Your task to perform on an android device: turn off translation in the chrome app Image 0: 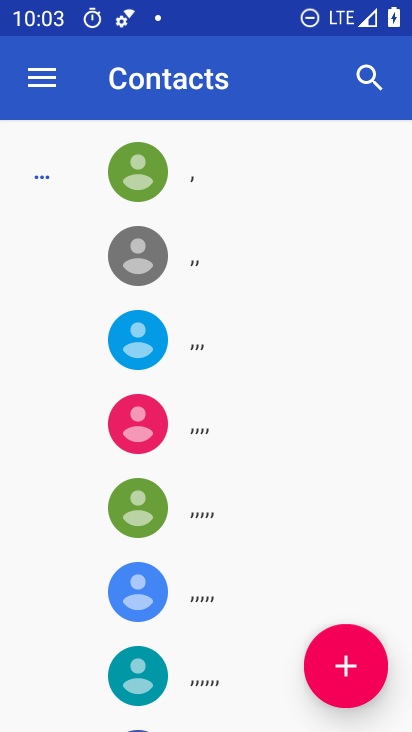
Step 0: press home button
Your task to perform on an android device: turn off translation in the chrome app Image 1: 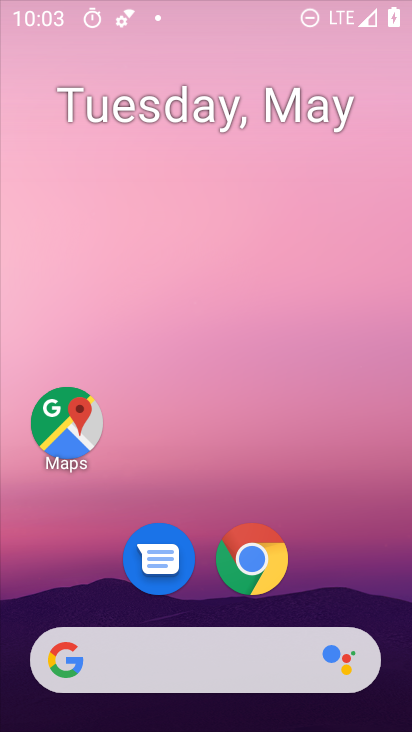
Step 1: click (398, 649)
Your task to perform on an android device: turn off translation in the chrome app Image 2: 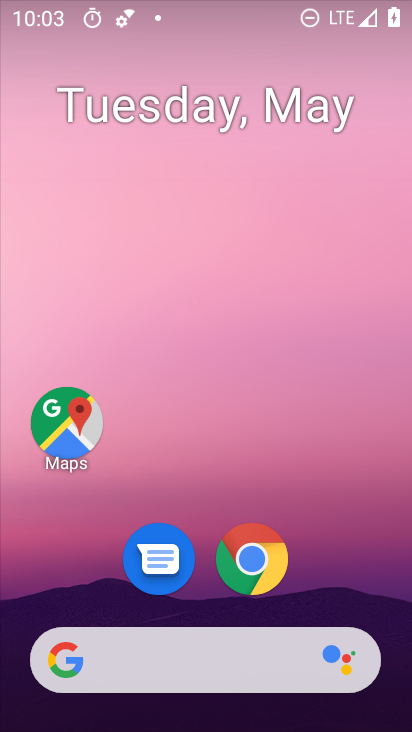
Step 2: drag from (375, 347) to (285, 38)
Your task to perform on an android device: turn off translation in the chrome app Image 3: 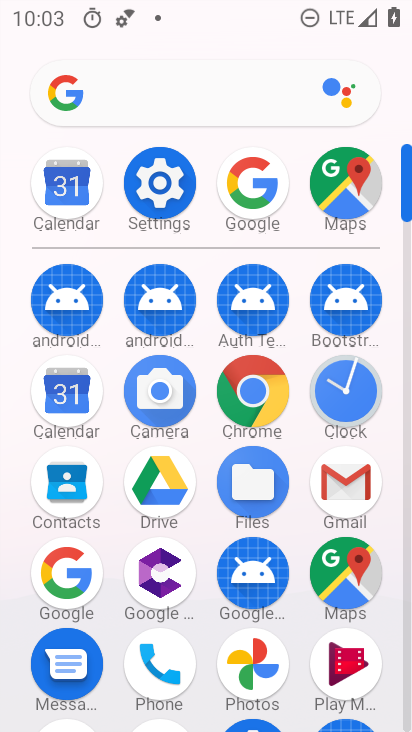
Step 3: click (240, 391)
Your task to perform on an android device: turn off translation in the chrome app Image 4: 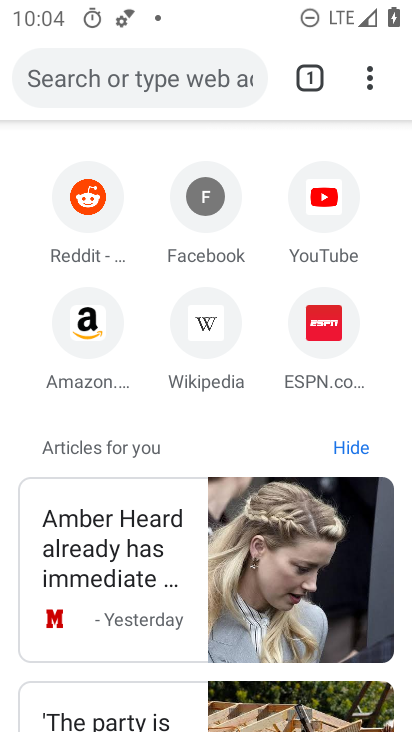
Step 4: click (375, 68)
Your task to perform on an android device: turn off translation in the chrome app Image 5: 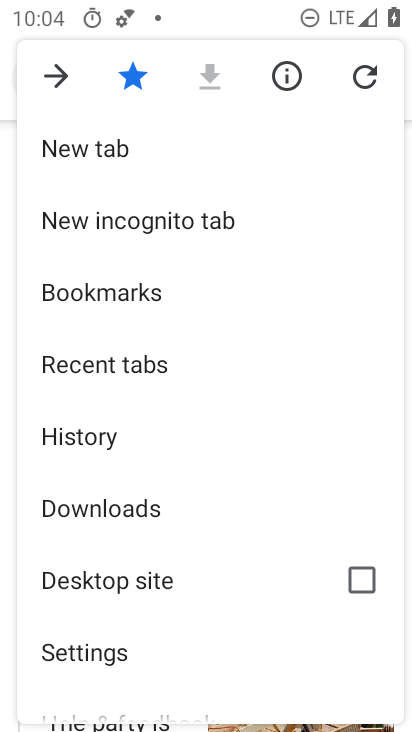
Step 5: drag from (124, 670) to (215, 180)
Your task to perform on an android device: turn off translation in the chrome app Image 6: 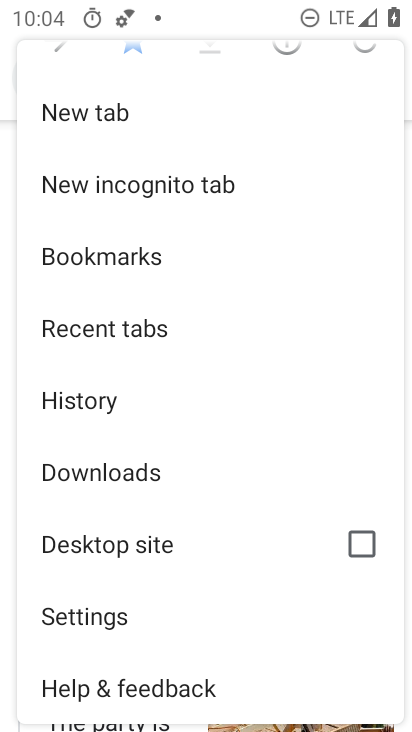
Step 6: click (97, 609)
Your task to perform on an android device: turn off translation in the chrome app Image 7: 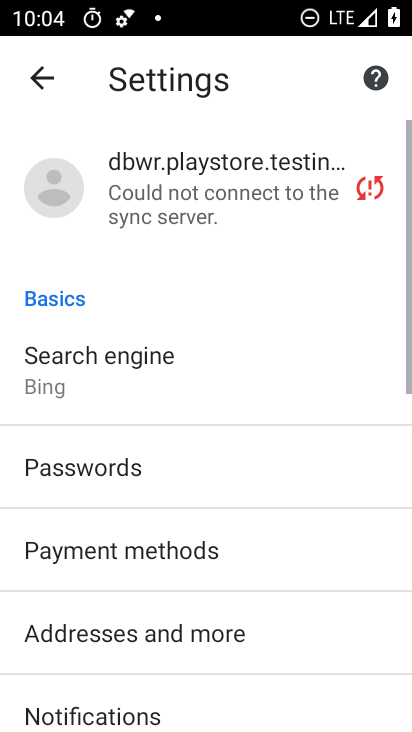
Step 7: drag from (119, 683) to (213, 106)
Your task to perform on an android device: turn off translation in the chrome app Image 8: 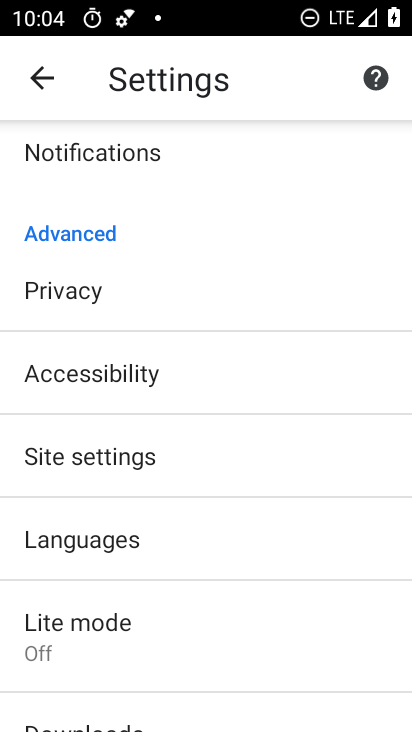
Step 8: click (87, 560)
Your task to perform on an android device: turn off translation in the chrome app Image 9: 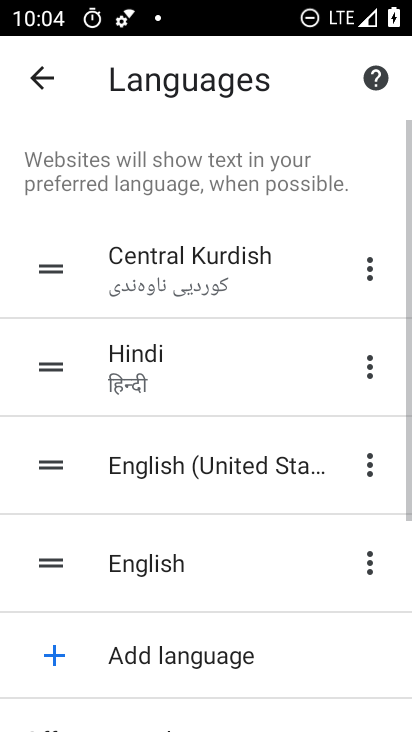
Step 9: task complete